Your task to perform on an android device: Open Wikipedia Image 0: 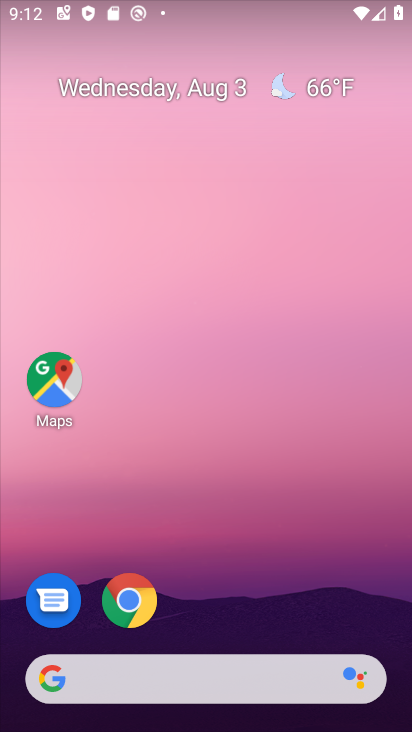
Step 0: click (139, 602)
Your task to perform on an android device: Open Wikipedia Image 1: 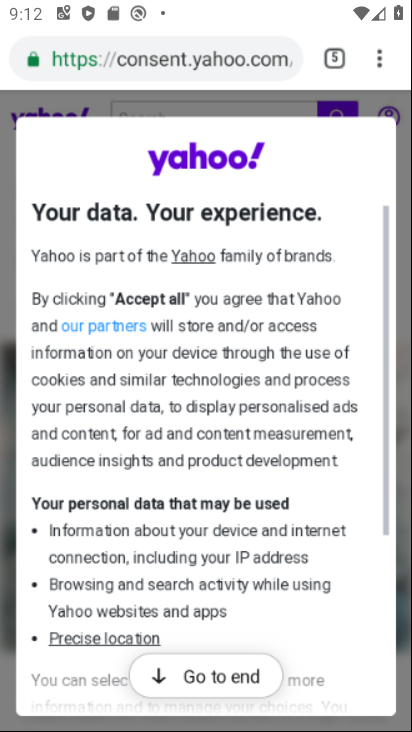
Step 1: click (206, 61)
Your task to perform on an android device: Open Wikipedia Image 2: 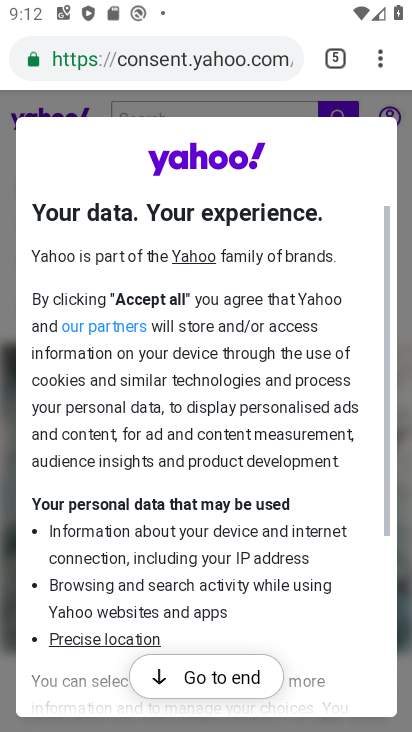
Step 2: type "wikipedia"
Your task to perform on an android device: Open Wikipedia Image 3: 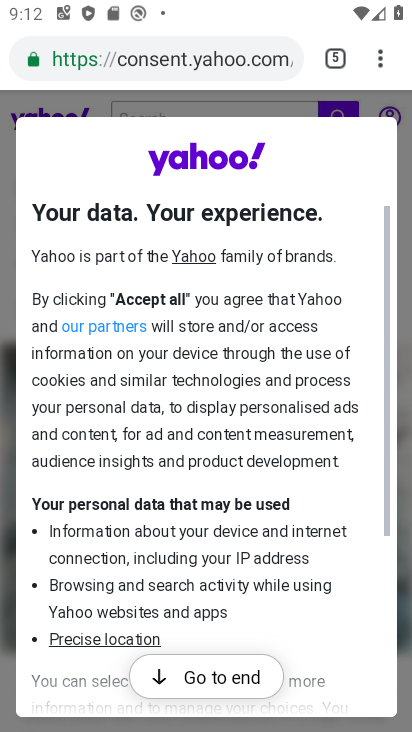
Step 3: click (169, 49)
Your task to perform on an android device: Open Wikipedia Image 4: 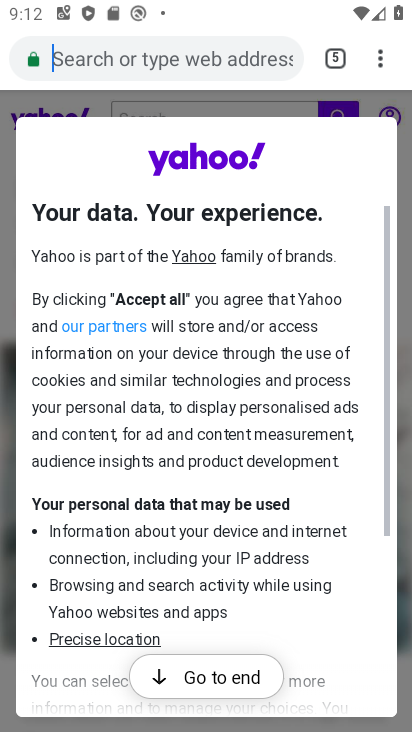
Step 4: click (240, 54)
Your task to perform on an android device: Open Wikipedia Image 5: 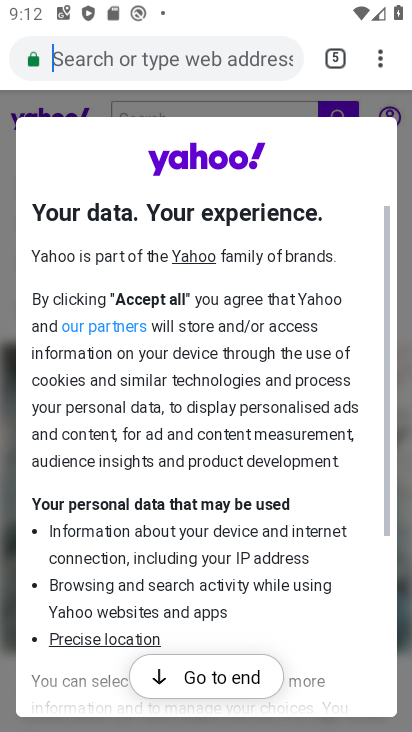
Step 5: click (226, 60)
Your task to perform on an android device: Open Wikipedia Image 6: 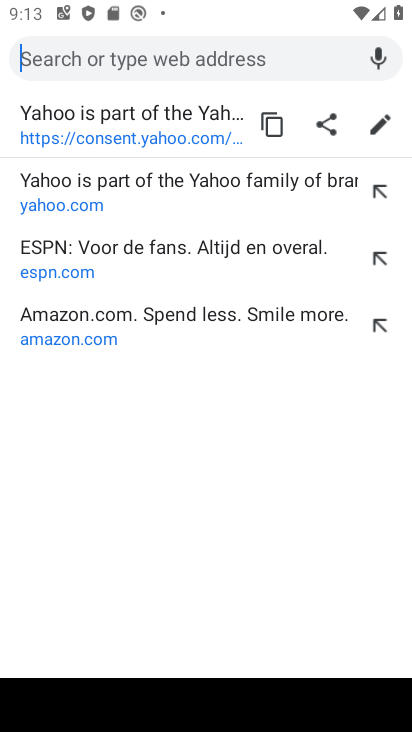
Step 6: click (224, 63)
Your task to perform on an android device: Open Wikipedia Image 7: 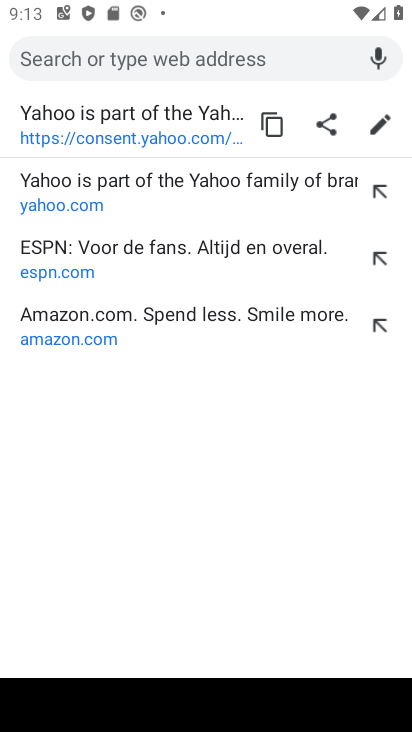
Step 7: type "wikipedia"
Your task to perform on an android device: Open Wikipedia Image 8: 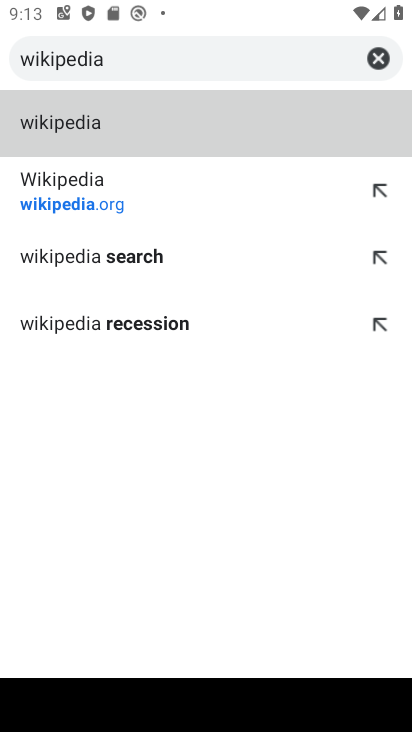
Step 8: click (91, 135)
Your task to perform on an android device: Open Wikipedia Image 9: 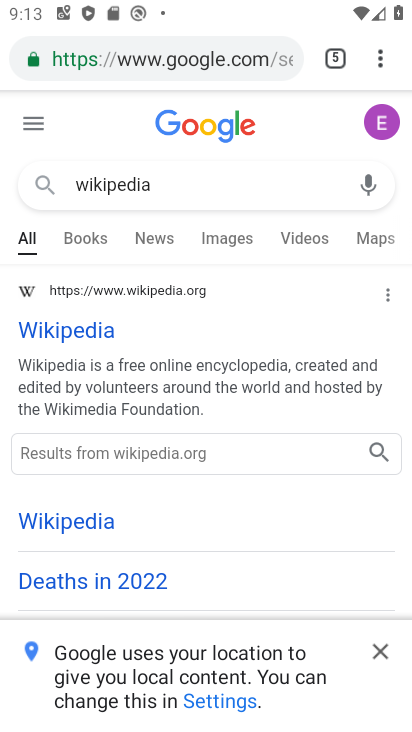
Step 9: task complete